Your task to perform on an android device: change the upload size in google photos Image 0: 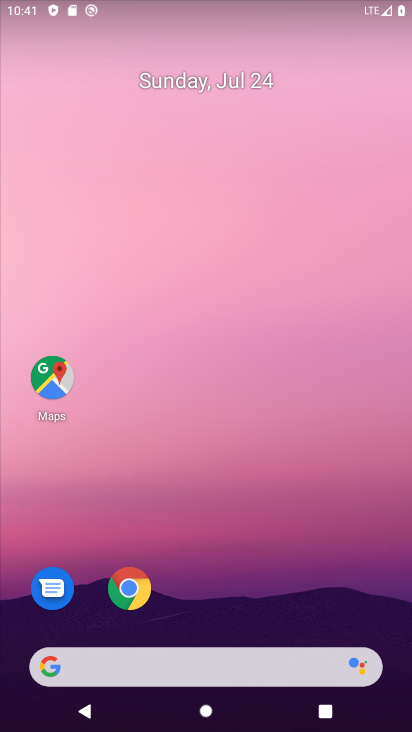
Step 0: drag from (265, 570) to (255, 73)
Your task to perform on an android device: change the upload size in google photos Image 1: 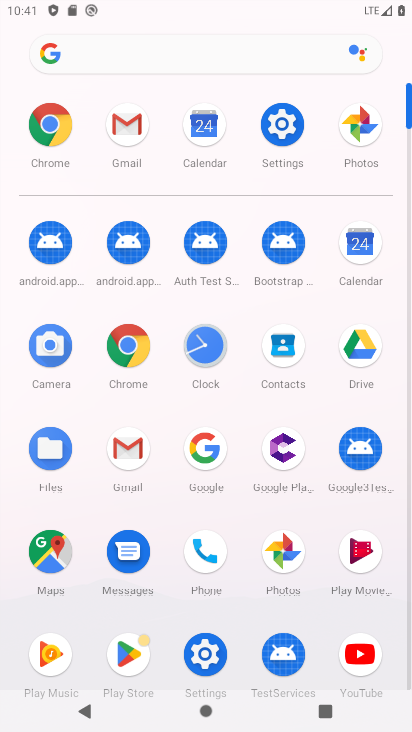
Step 1: click (291, 542)
Your task to perform on an android device: change the upload size in google photos Image 2: 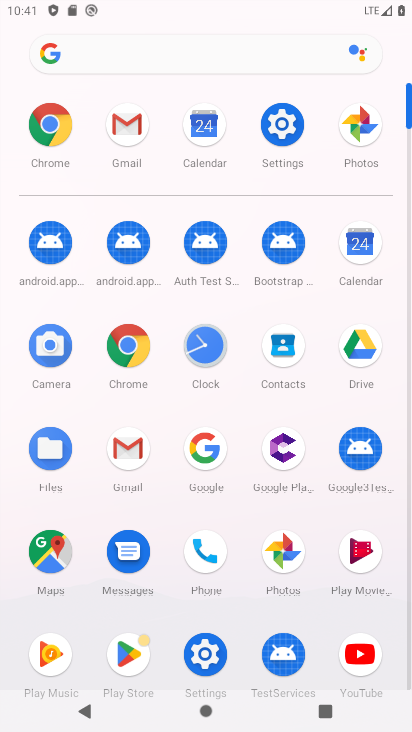
Step 2: click (291, 542)
Your task to perform on an android device: change the upload size in google photos Image 3: 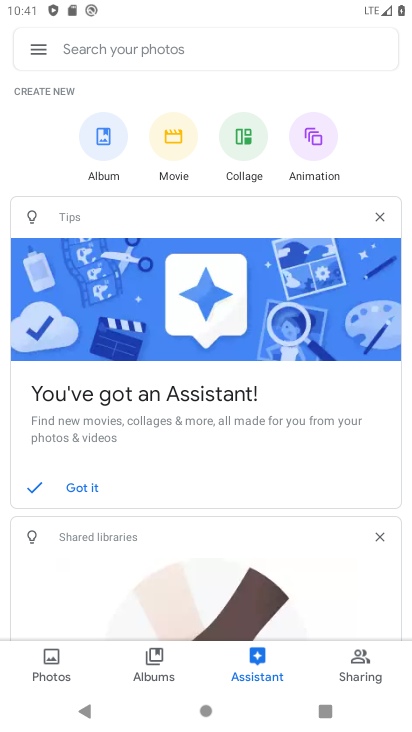
Step 3: click (44, 50)
Your task to perform on an android device: change the upload size in google photos Image 4: 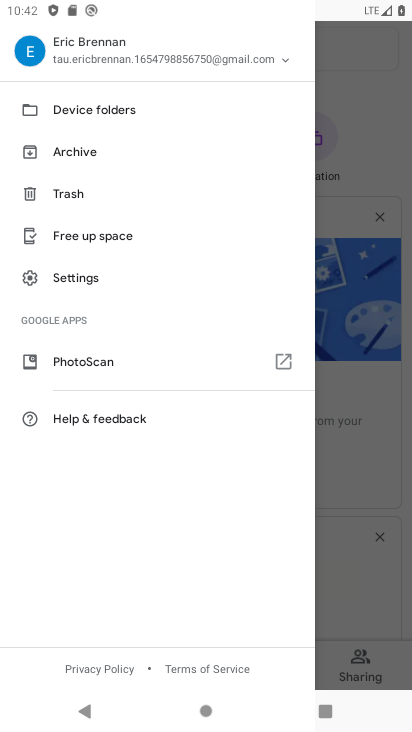
Step 4: click (76, 276)
Your task to perform on an android device: change the upload size in google photos Image 5: 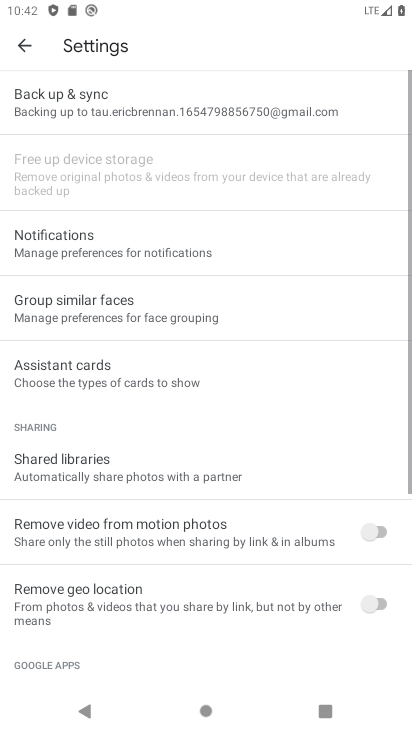
Step 5: click (179, 104)
Your task to perform on an android device: change the upload size in google photos Image 6: 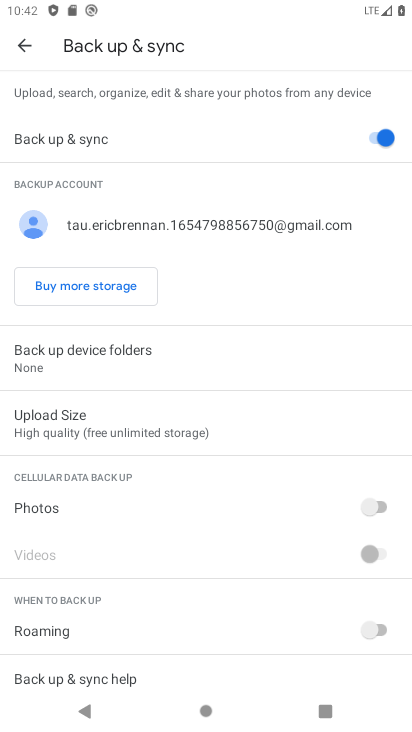
Step 6: click (59, 443)
Your task to perform on an android device: change the upload size in google photos Image 7: 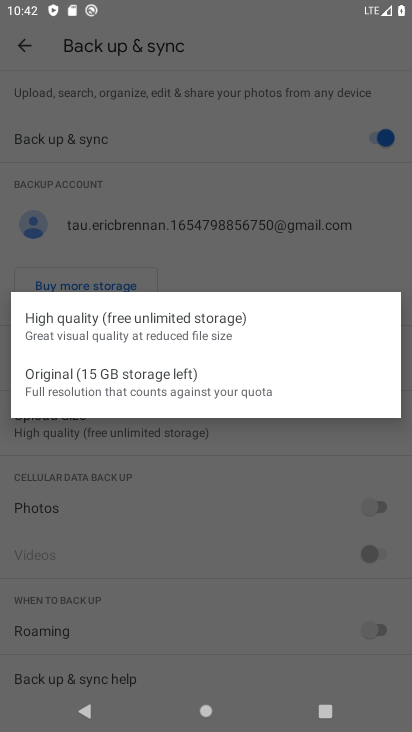
Step 7: click (89, 372)
Your task to perform on an android device: change the upload size in google photos Image 8: 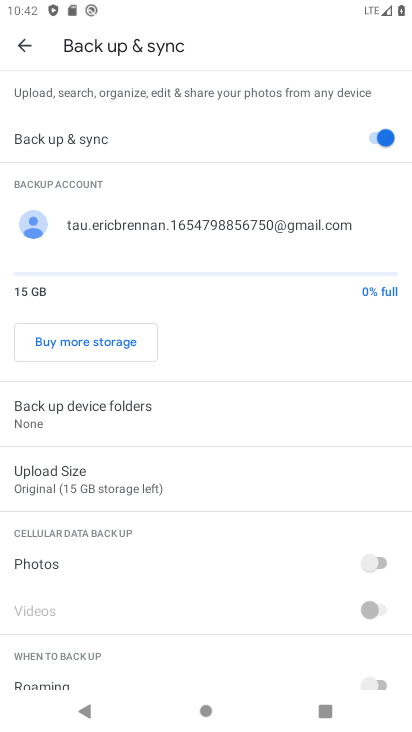
Step 8: task complete